Your task to perform on an android device: Open Youtube and go to "Your channel" Image 0: 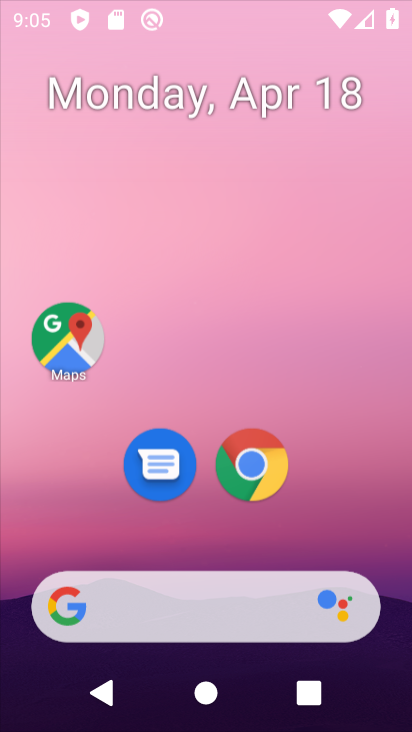
Step 0: click (254, 99)
Your task to perform on an android device: Open Youtube and go to "Your channel" Image 1: 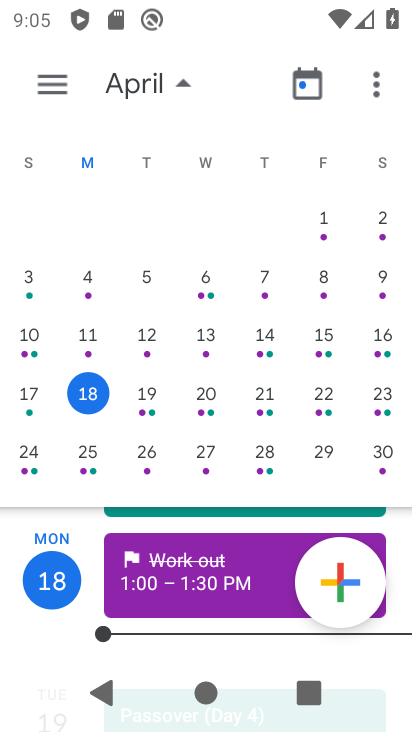
Step 1: press home button
Your task to perform on an android device: Open Youtube and go to "Your channel" Image 2: 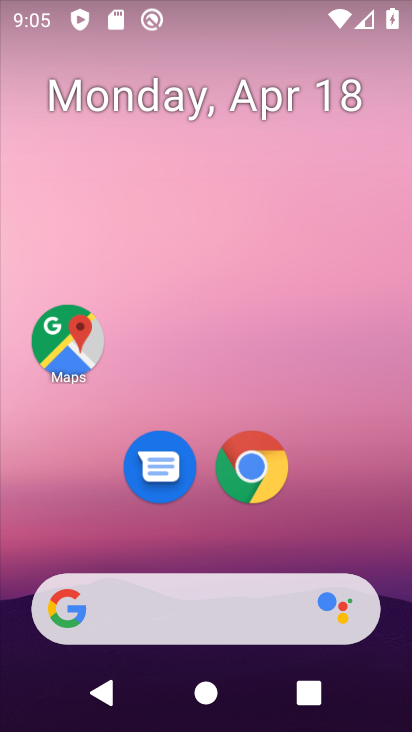
Step 2: drag from (356, 532) to (314, 106)
Your task to perform on an android device: Open Youtube and go to "Your channel" Image 3: 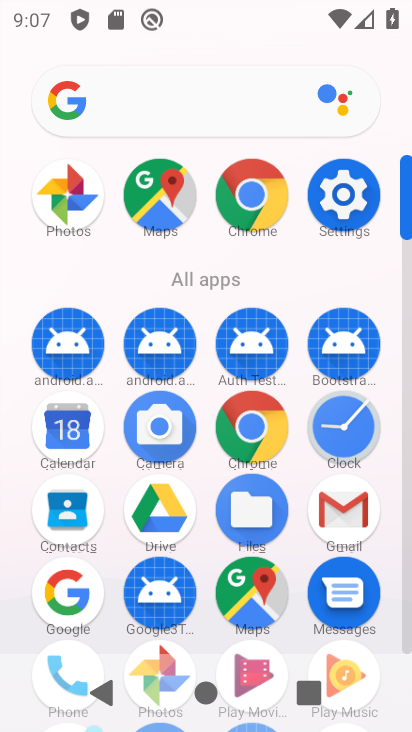
Step 3: click (405, 650)
Your task to perform on an android device: Open Youtube and go to "Your channel" Image 4: 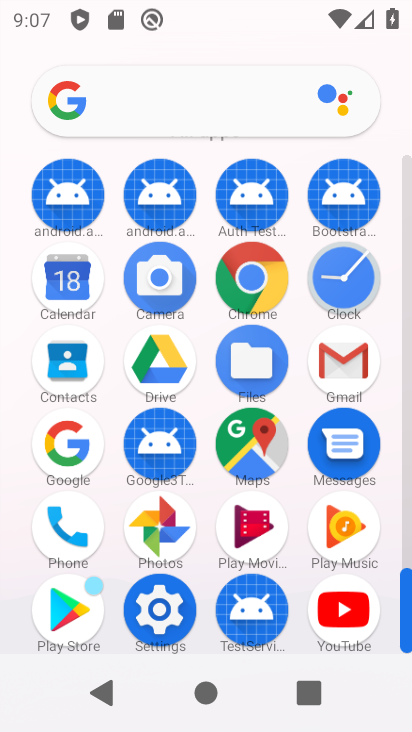
Step 4: click (325, 627)
Your task to perform on an android device: Open Youtube and go to "Your channel" Image 5: 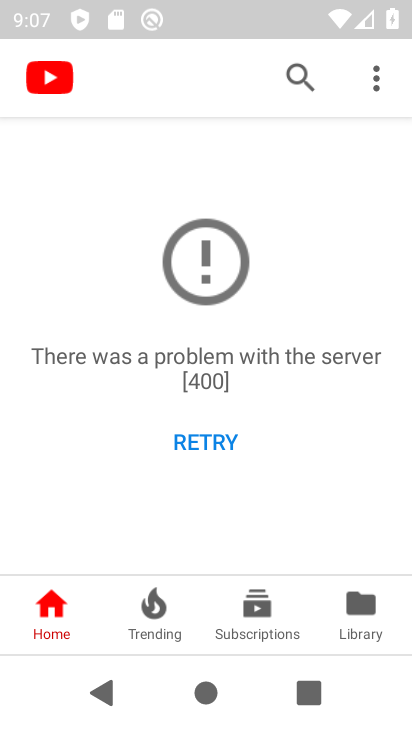
Step 5: click (344, 613)
Your task to perform on an android device: Open Youtube and go to "Your channel" Image 6: 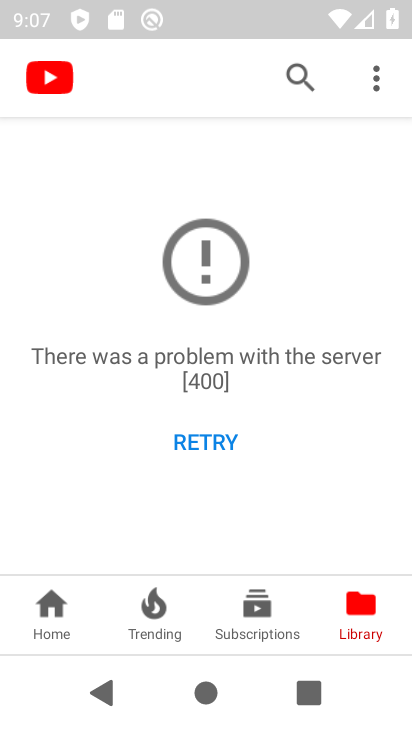
Step 6: click (242, 607)
Your task to perform on an android device: Open Youtube and go to "Your channel" Image 7: 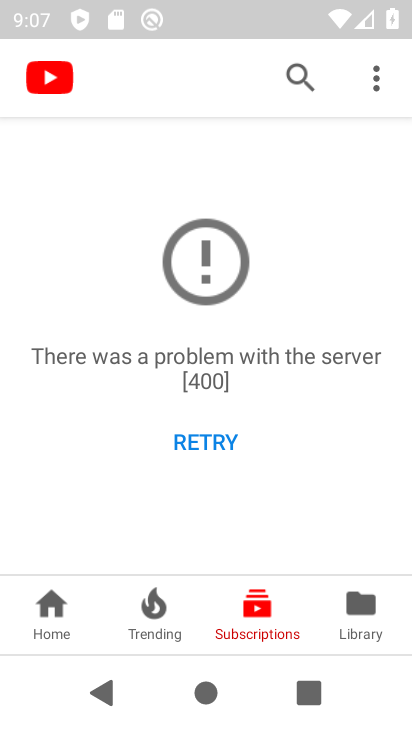
Step 7: click (358, 597)
Your task to perform on an android device: Open Youtube and go to "Your channel" Image 8: 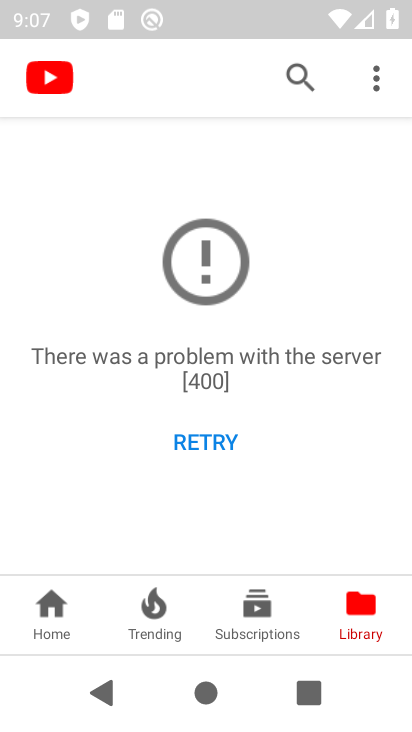
Step 8: click (184, 447)
Your task to perform on an android device: Open Youtube and go to "Your channel" Image 9: 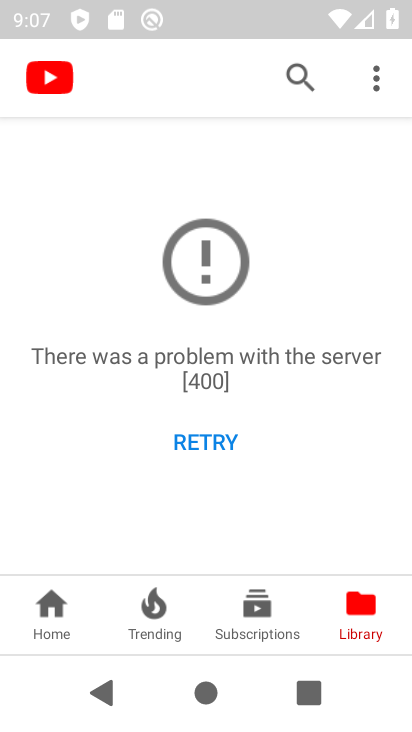
Step 9: task complete